Your task to perform on an android device: Is it going to rain tomorrow? Image 0: 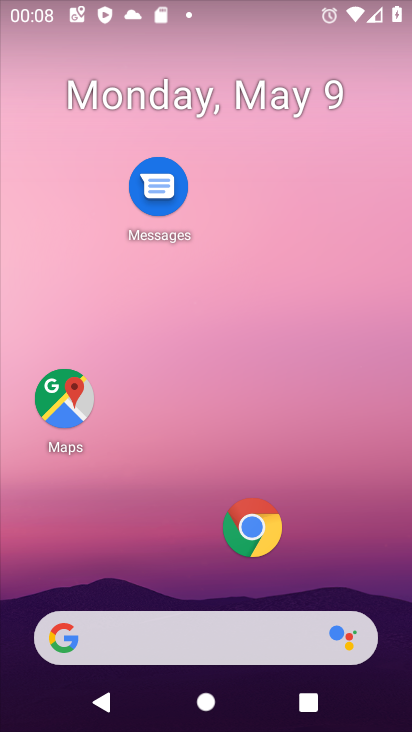
Step 0: drag from (188, 566) to (207, 74)
Your task to perform on an android device: Is it going to rain tomorrow? Image 1: 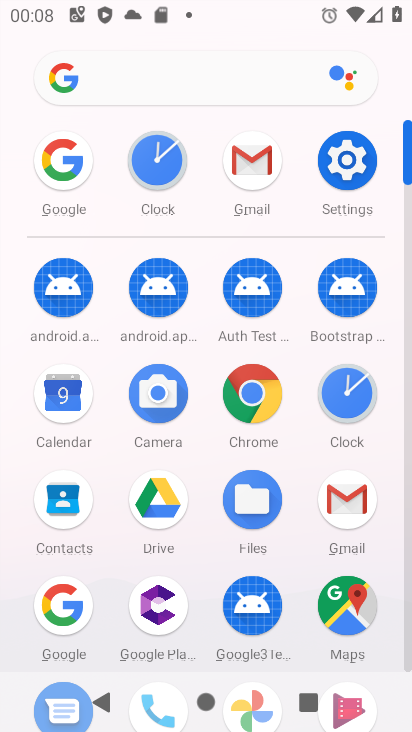
Step 1: click (60, 166)
Your task to perform on an android device: Is it going to rain tomorrow? Image 2: 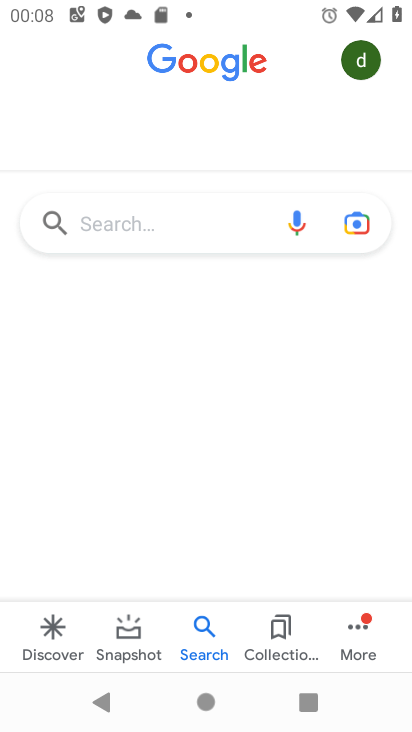
Step 2: click (142, 229)
Your task to perform on an android device: Is it going to rain tomorrow? Image 3: 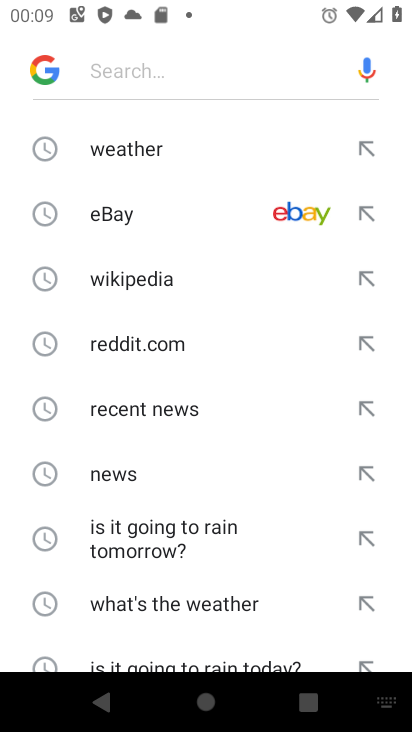
Step 3: type "is it going to rain tomorrow"
Your task to perform on an android device: Is it going to rain tomorrow? Image 4: 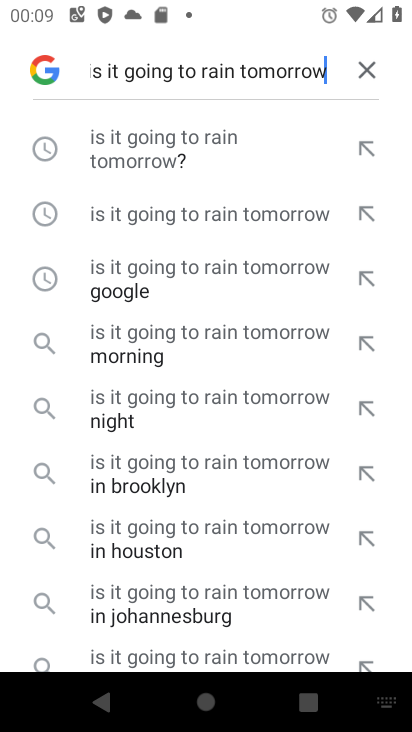
Step 4: click (188, 143)
Your task to perform on an android device: Is it going to rain tomorrow? Image 5: 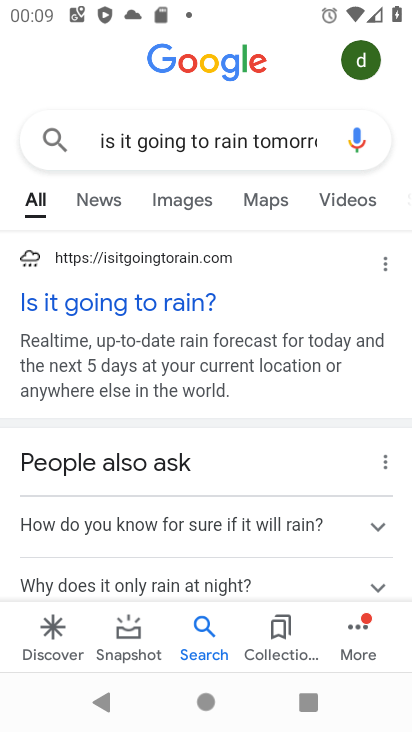
Step 5: task complete